Your task to perform on an android device: Is it going to rain today? Image 0: 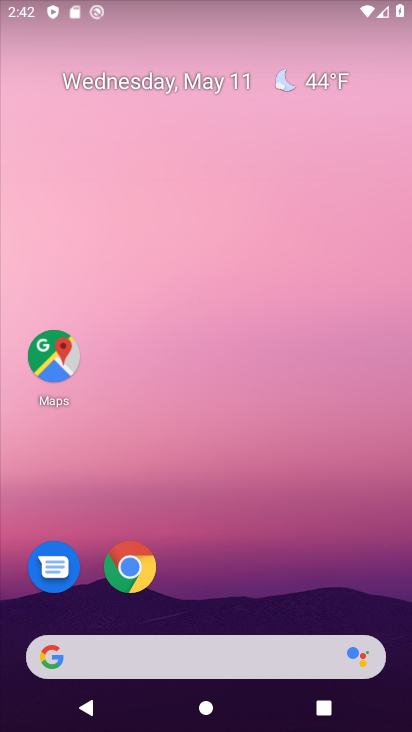
Step 0: drag from (244, 542) to (206, 66)
Your task to perform on an android device: Is it going to rain today? Image 1: 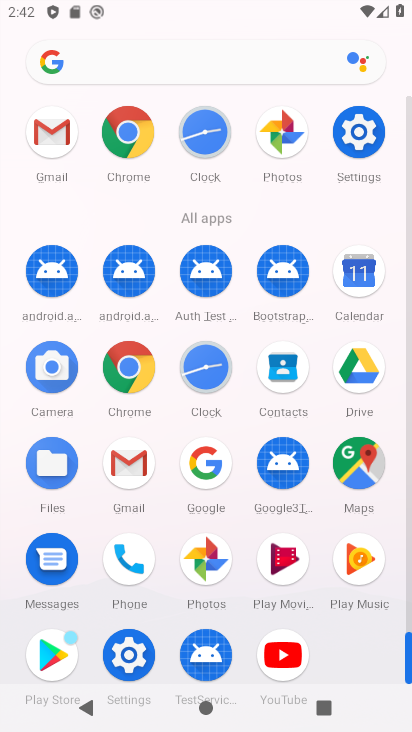
Step 1: click (128, 129)
Your task to perform on an android device: Is it going to rain today? Image 2: 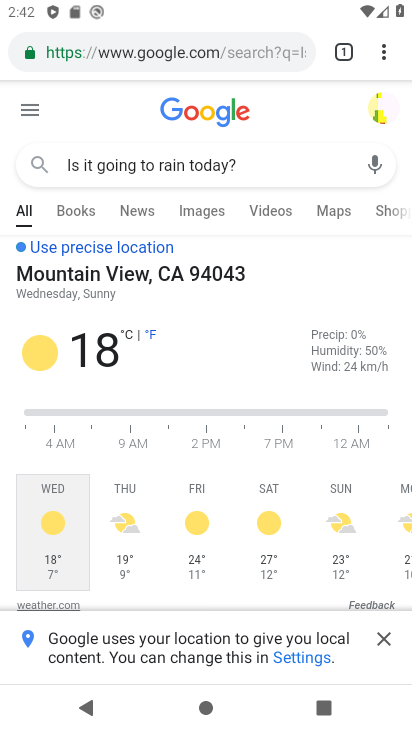
Step 2: task complete